Your task to perform on an android device: find snoozed emails in the gmail app Image 0: 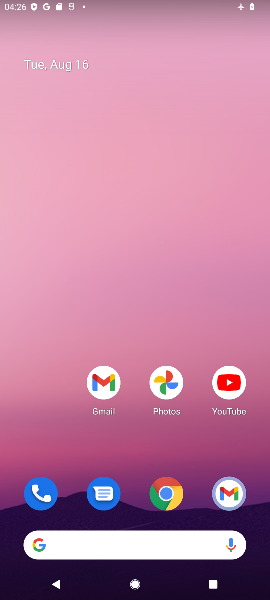
Step 0: press home button
Your task to perform on an android device: find snoozed emails in the gmail app Image 1: 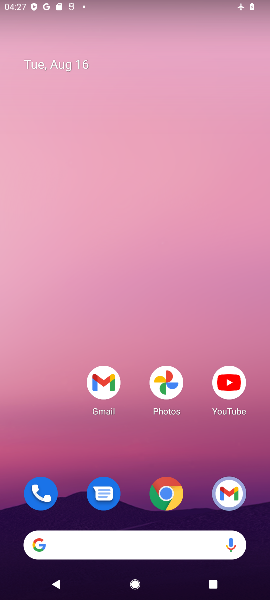
Step 1: drag from (72, 481) to (57, 161)
Your task to perform on an android device: find snoozed emails in the gmail app Image 2: 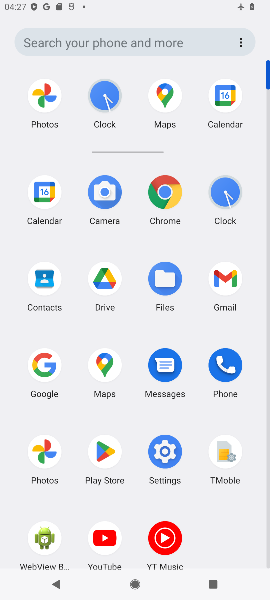
Step 2: click (228, 288)
Your task to perform on an android device: find snoozed emails in the gmail app Image 3: 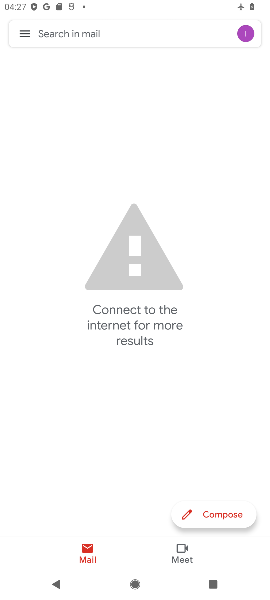
Step 3: click (23, 32)
Your task to perform on an android device: find snoozed emails in the gmail app Image 4: 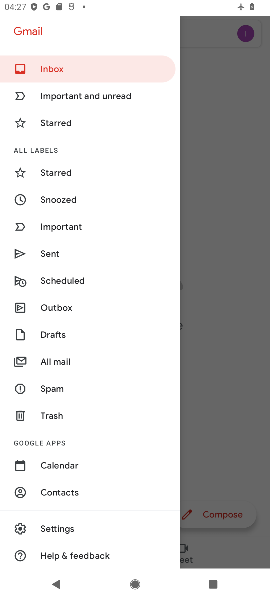
Step 4: click (67, 203)
Your task to perform on an android device: find snoozed emails in the gmail app Image 5: 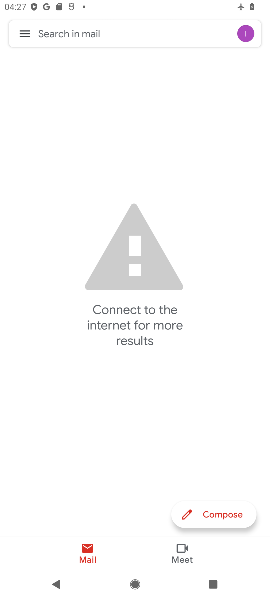
Step 5: task complete